Your task to perform on an android device: turn notification dots on Image 0: 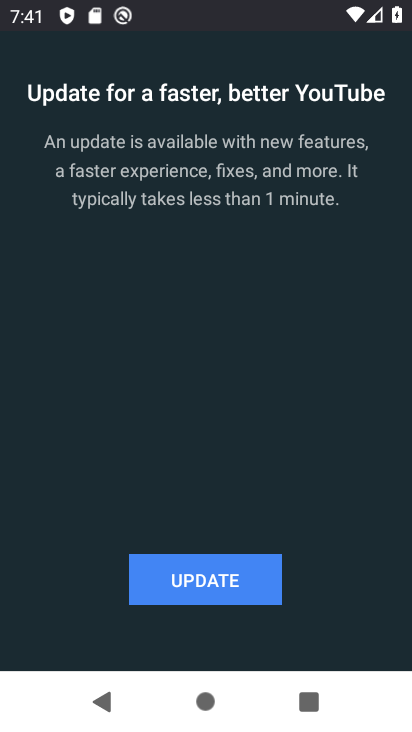
Step 0: press home button
Your task to perform on an android device: turn notification dots on Image 1: 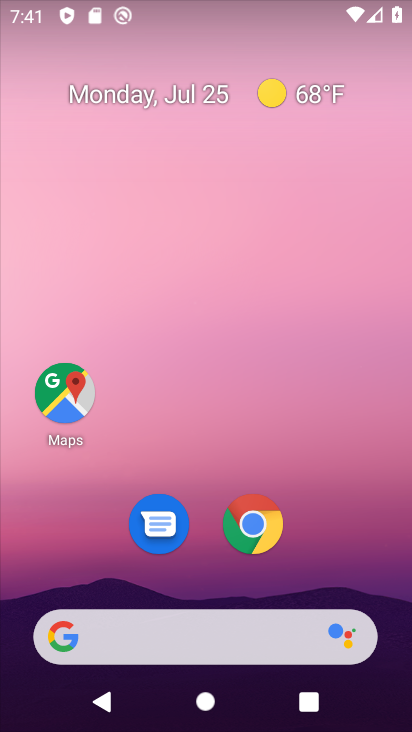
Step 1: drag from (322, 555) to (335, 25)
Your task to perform on an android device: turn notification dots on Image 2: 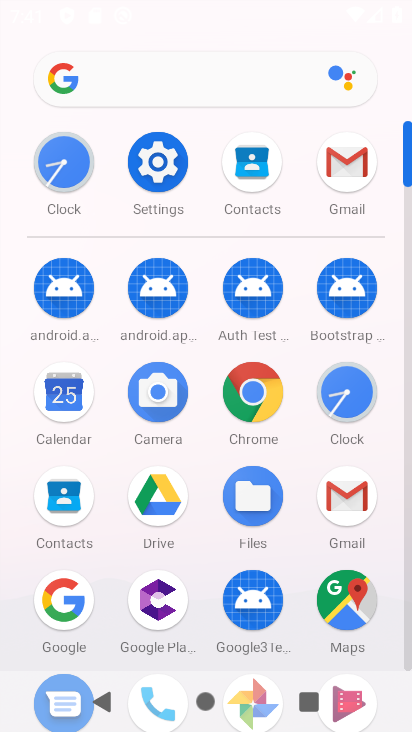
Step 2: click (161, 161)
Your task to perform on an android device: turn notification dots on Image 3: 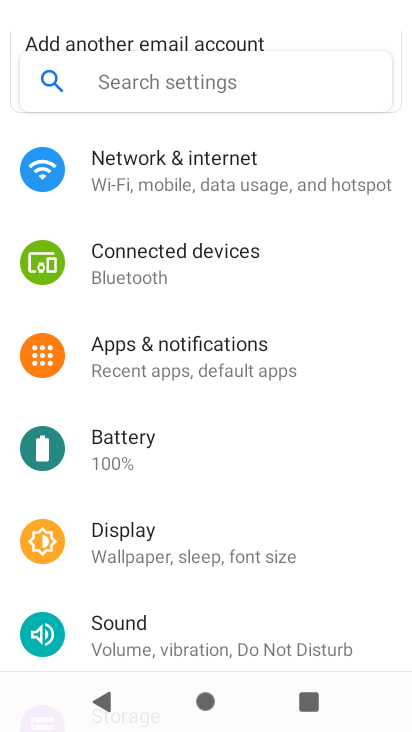
Step 3: click (198, 356)
Your task to perform on an android device: turn notification dots on Image 4: 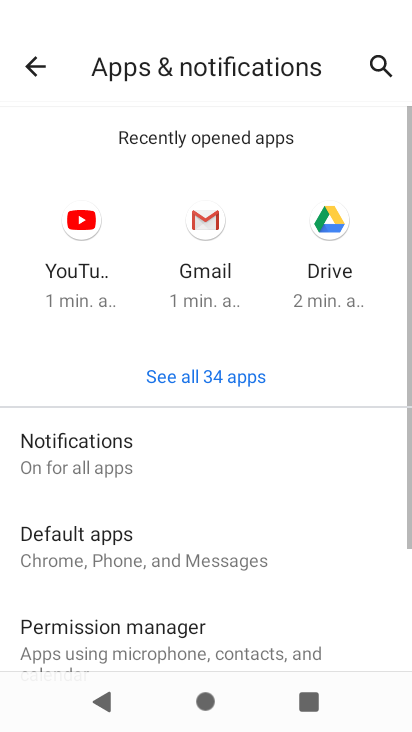
Step 4: click (120, 446)
Your task to perform on an android device: turn notification dots on Image 5: 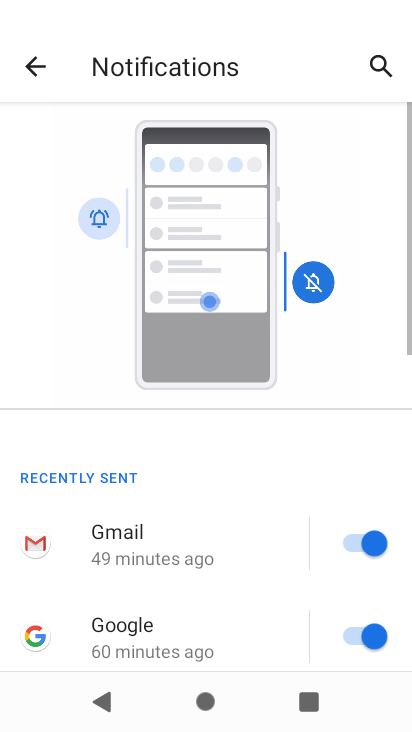
Step 5: drag from (235, 588) to (338, 10)
Your task to perform on an android device: turn notification dots on Image 6: 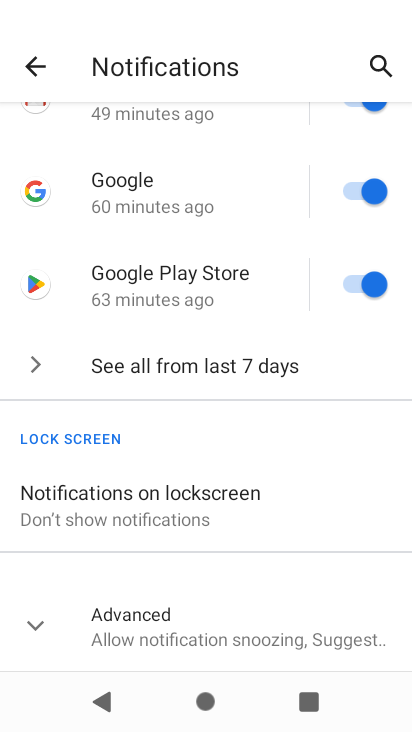
Step 6: click (42, 621)
Your task to perform on an android device: turn notification dots on Image 7: 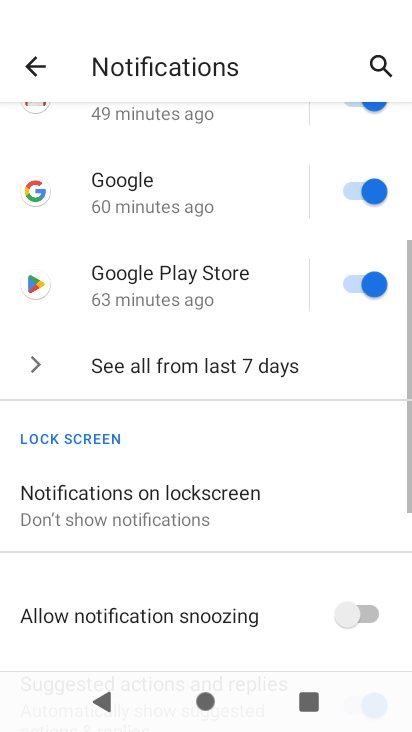
Step 7: drag from (170, 604) to (250, 193)
Your task to perform on an android device: turn notification dots on Image 8: 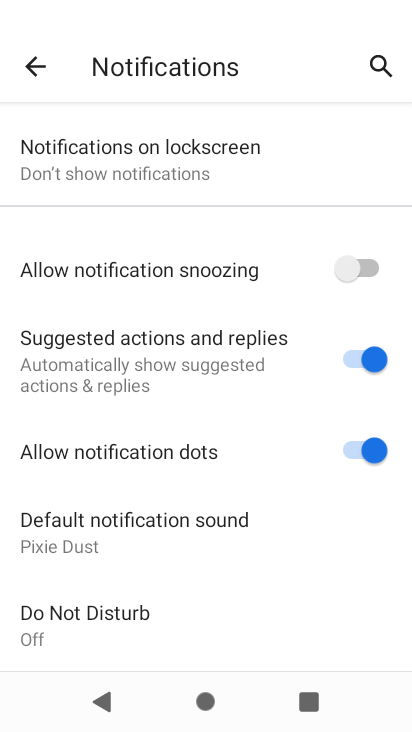
Step 8: click (364, 446)
Your task to perform on an android device: turn notification dots on Image 9: 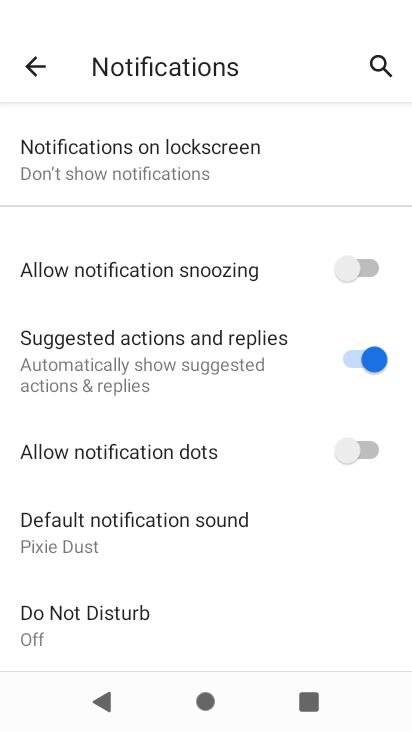
Step 9: task complete